Your task to perform on an android device: Set the phone to "Do not disturb". Image 0: 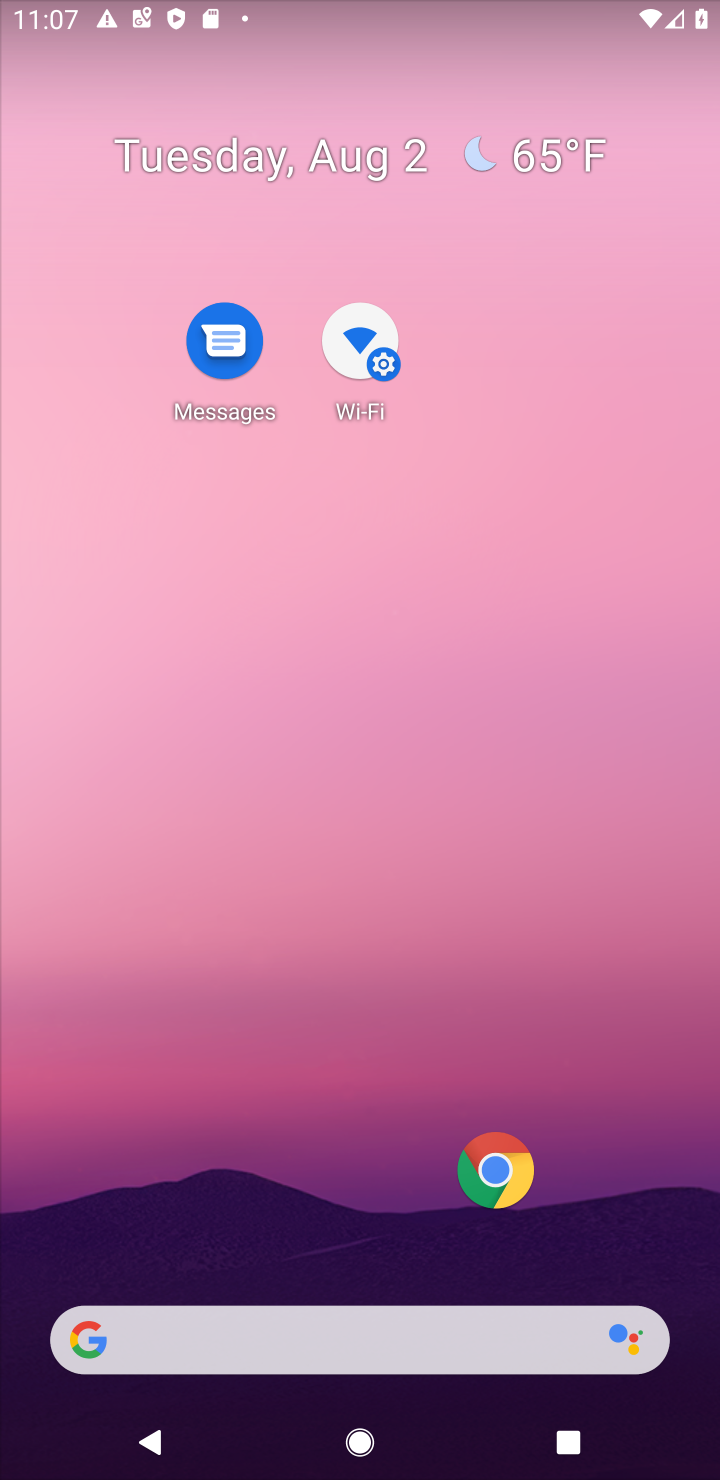
Step 0: drag from (269, 1012) to (351, 68)
Your task to perform on an android device: Set the phone to "Do not disturb". Image 1: 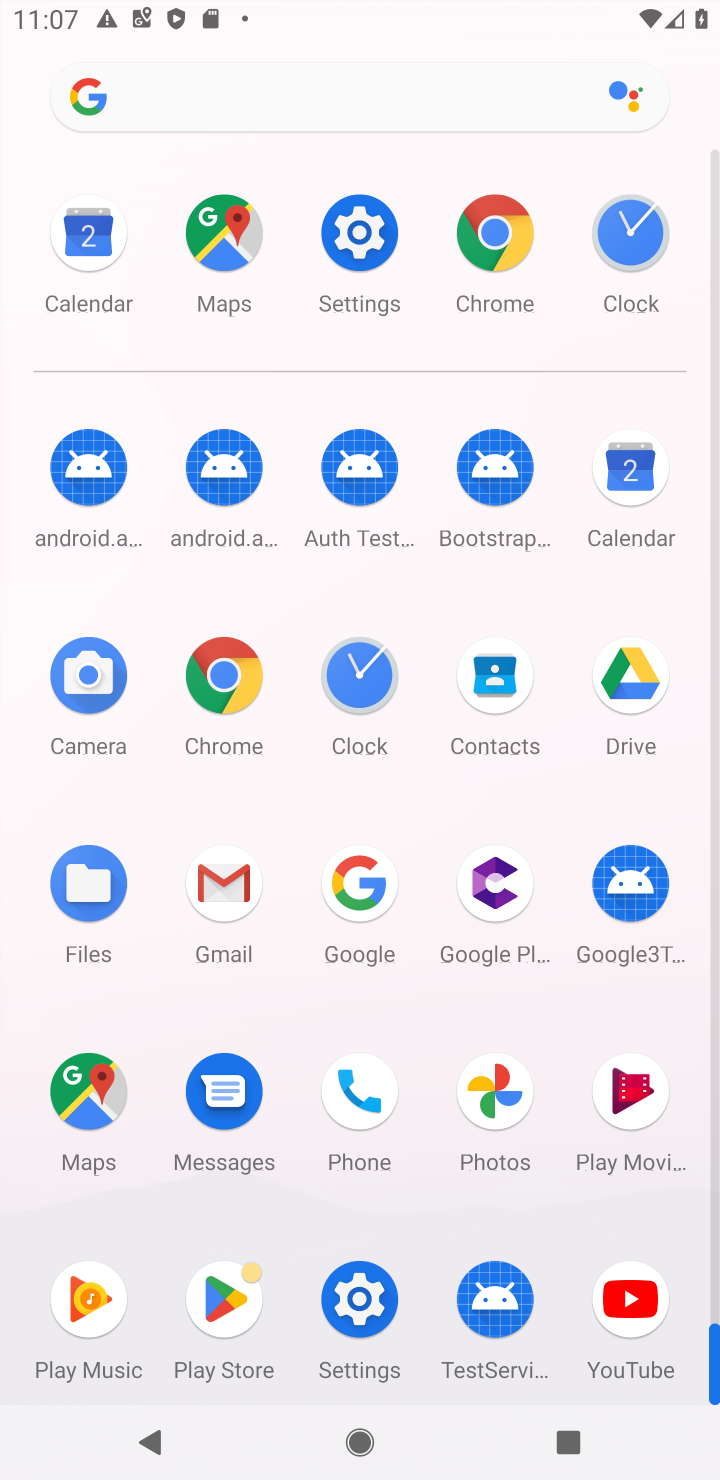
Step 1: click (355, 250)
Your task to perform on an android device: Set the phone to "Do not disturb". Image 2: 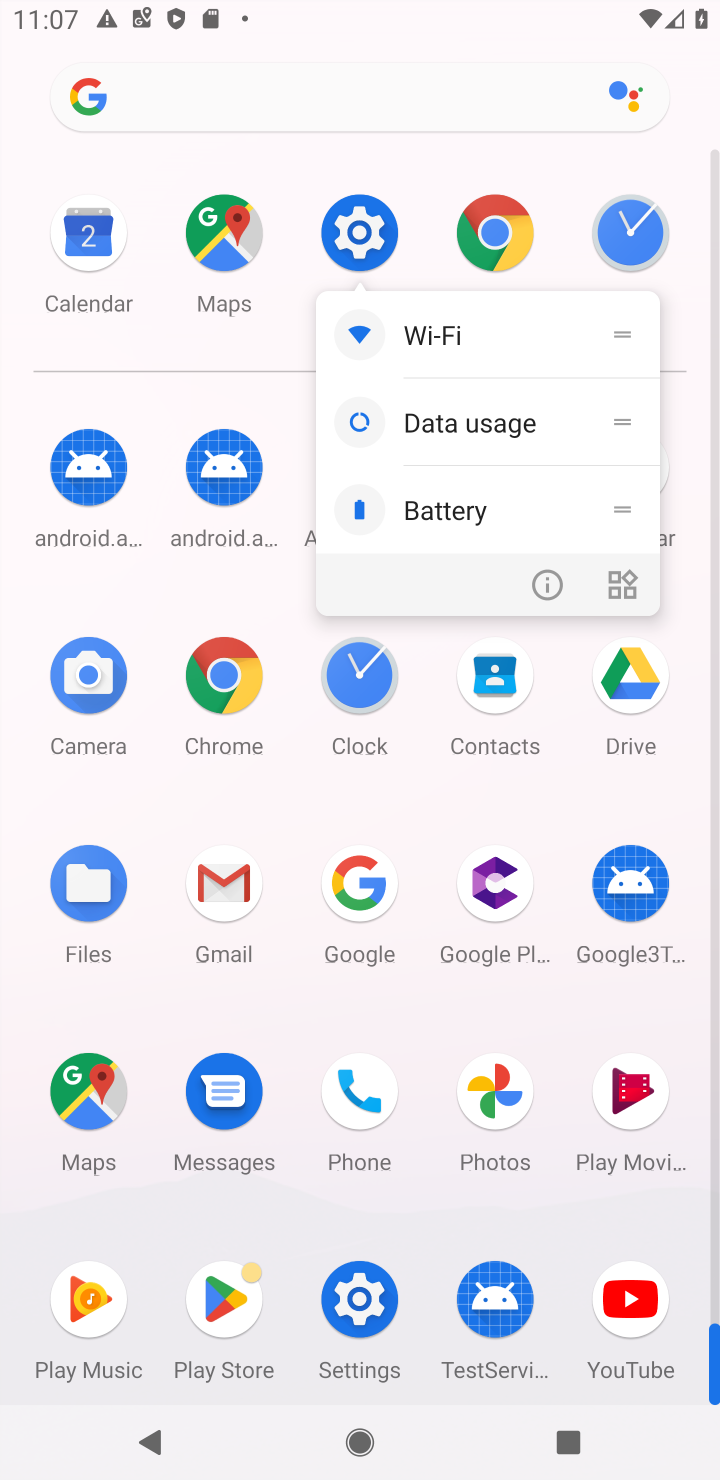
Step 2: click (551, 589)
Your task to perform on an android device: Set the phone to "Do not disturb". Image 3: 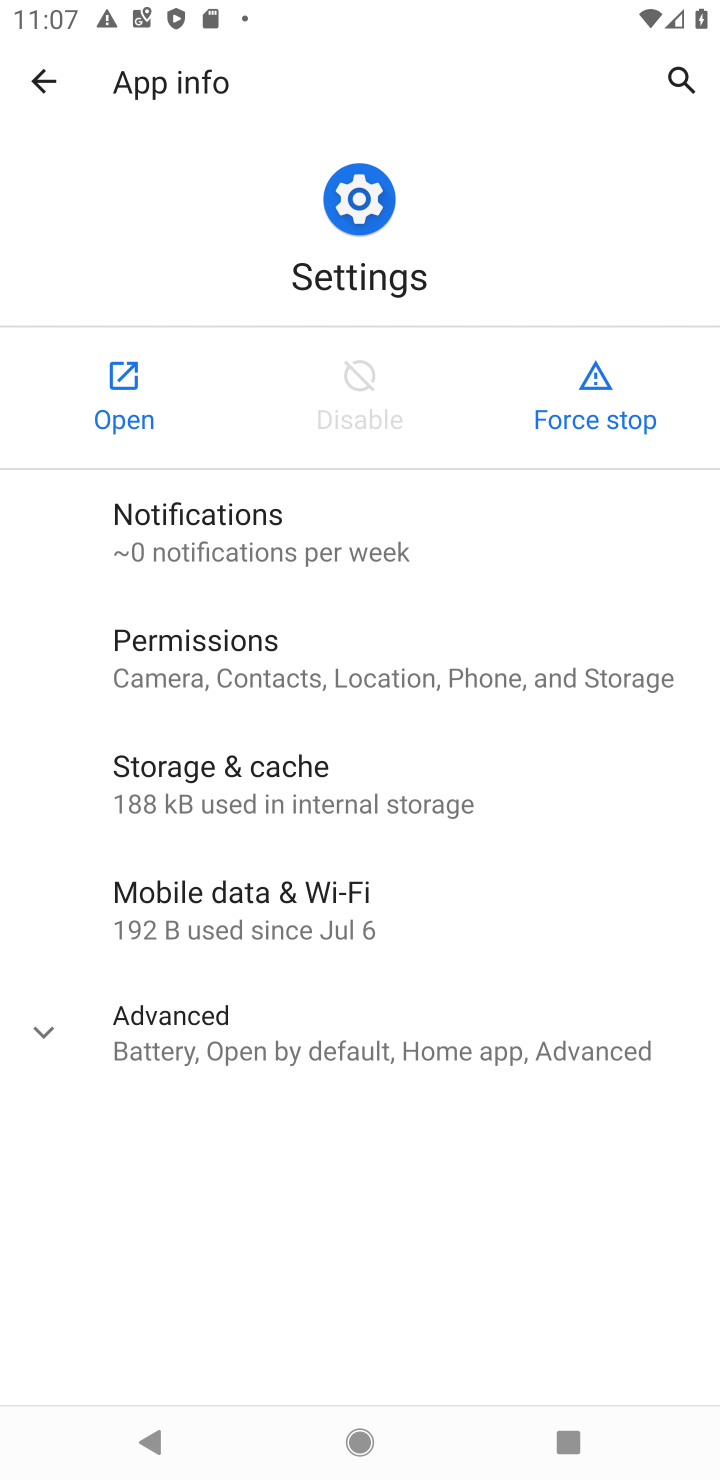
Step 3: click (120, 396)
Your task to perform on an android device: Set the phone to "Do not disturb". Image 4: 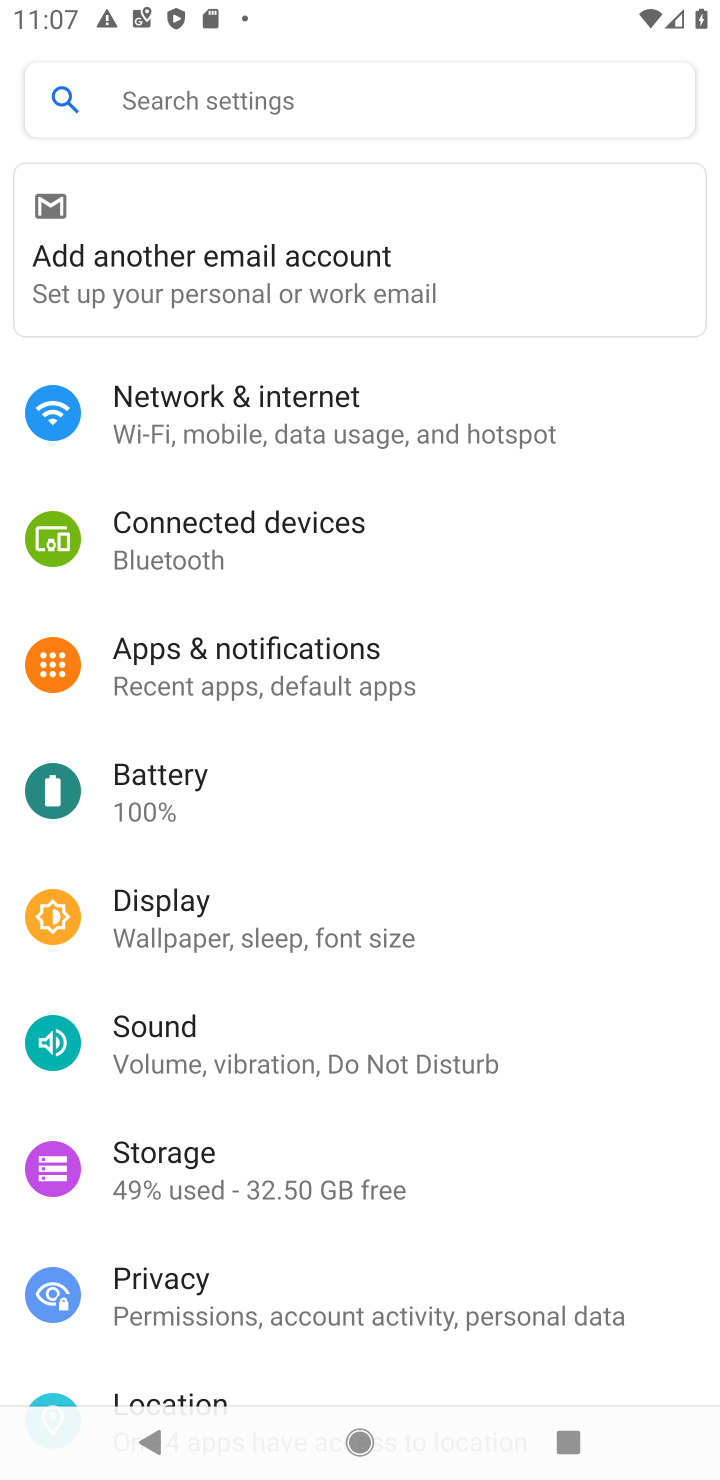
Step 4: click (349, 652)
Your task to perform on an android device: Set the phone to "Do not disturb". Image 5: 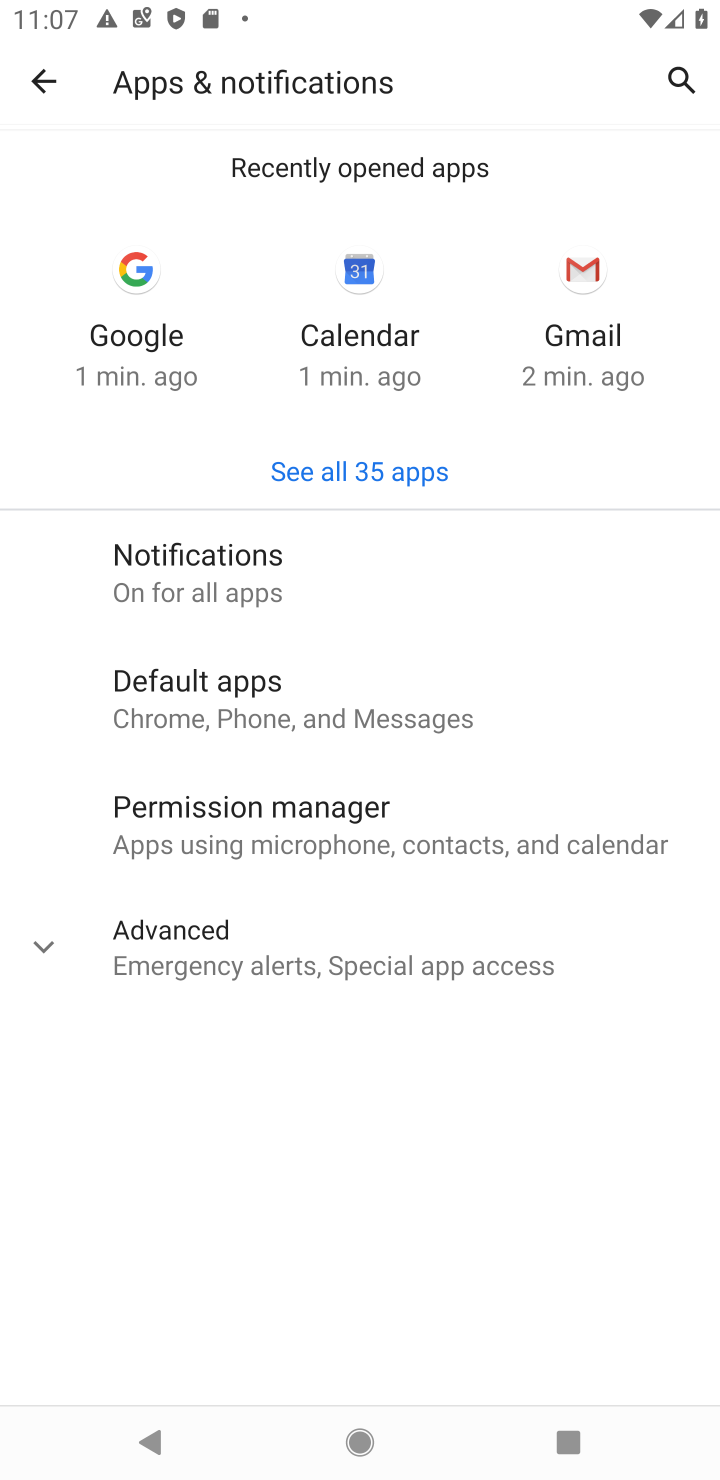
Step 5: click (339, 566)
Your task to perform on an android device: Set the phone to "Do not disturb". Image 6: 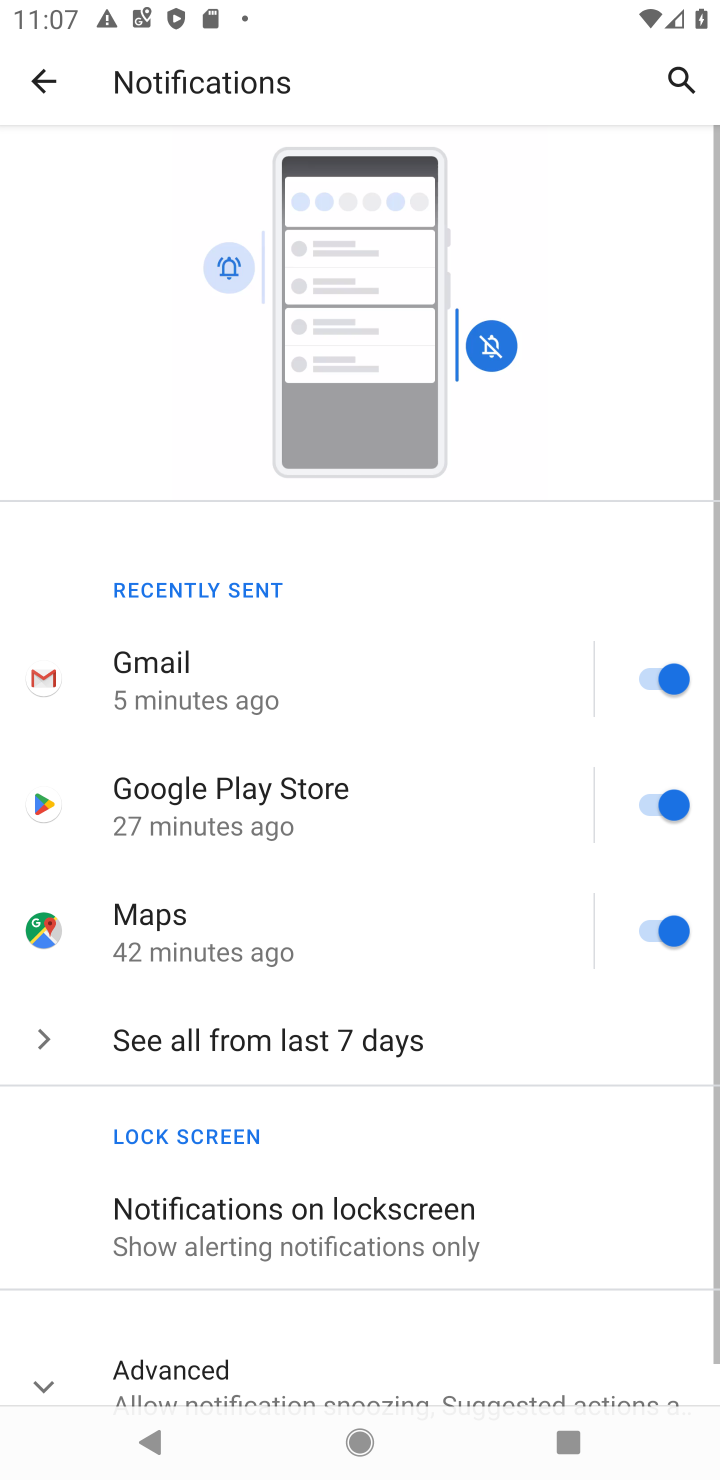
Step 6: drag from (348, 1188) to (556, 32)
Your task to perform on an android device: Set the phone to "Do not disturb". Image 7: 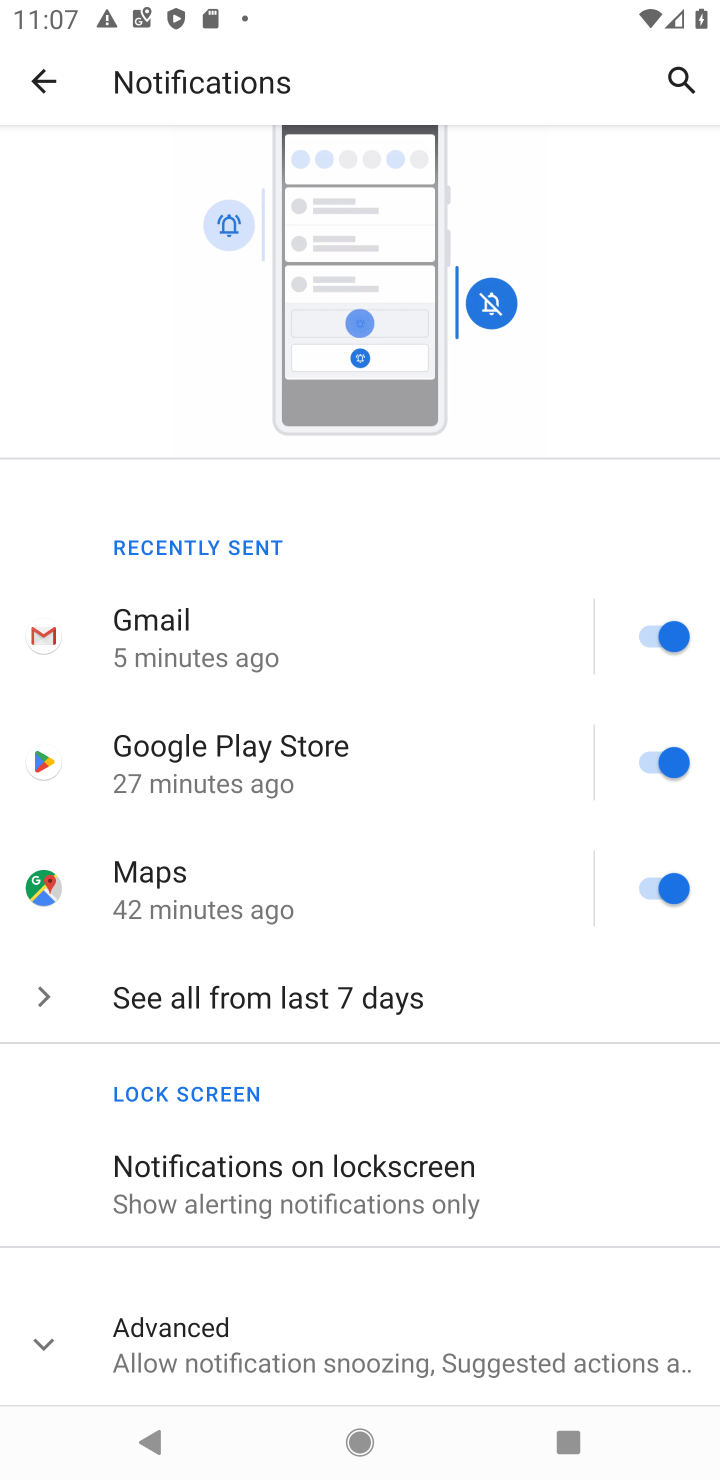
Step 7: click (241, 1338)
Your task to perform on an android device: Set the phone to "Do not disturb". Image 8: 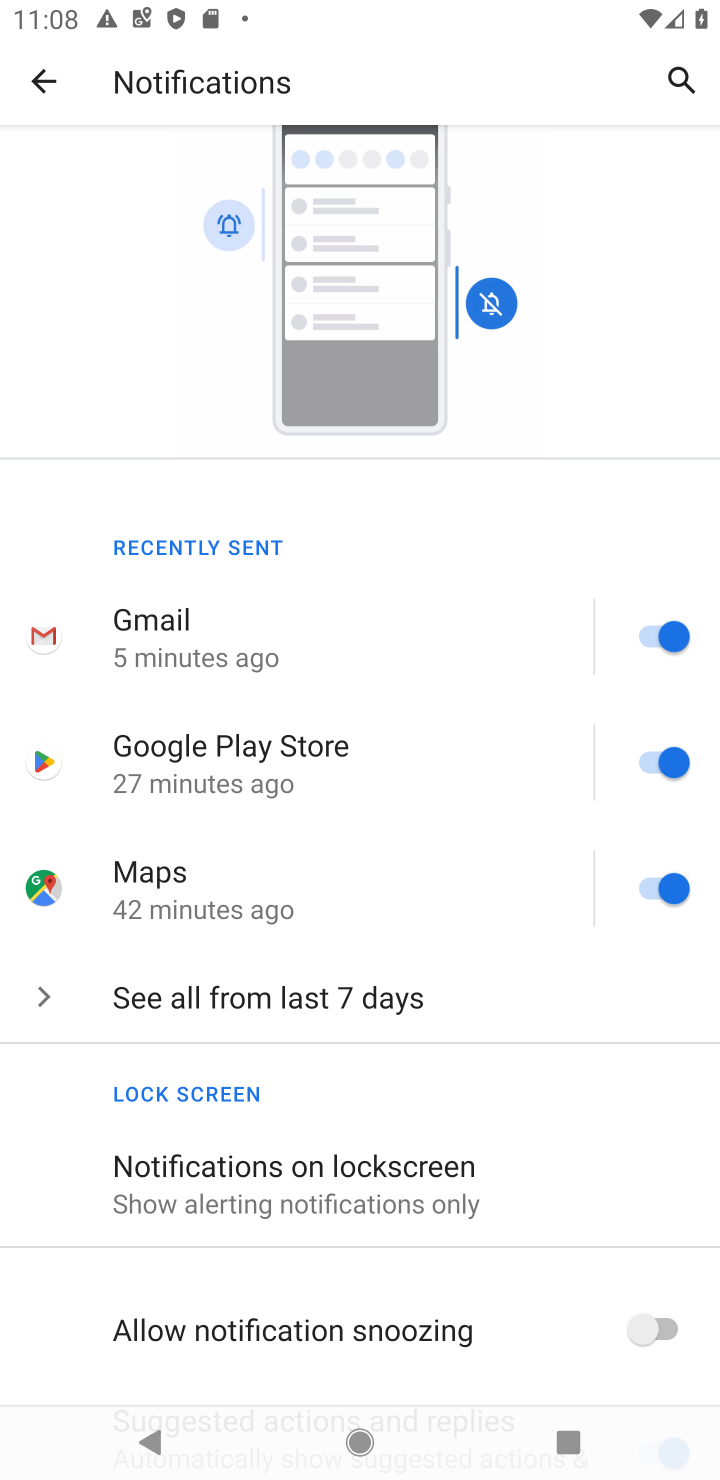
Step 8: drag from (303, 647) to (314, 6)
Your task to perform on an android device: Set the phone to "Do not disturb". Image 9: 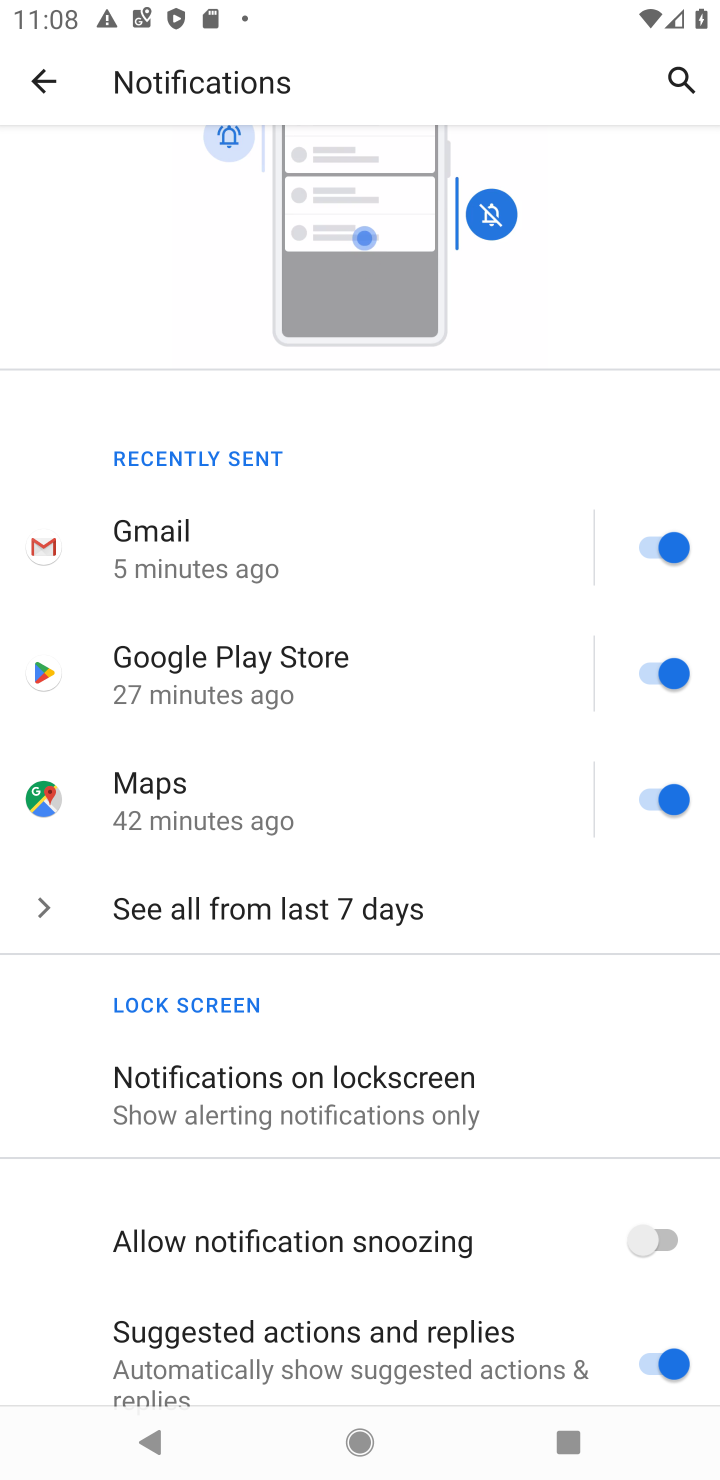
Step 9: drag from (347, 1265) to (604, 347)
Your task to perform on an android device: Set the phone to "Do not disturb". Image 10: 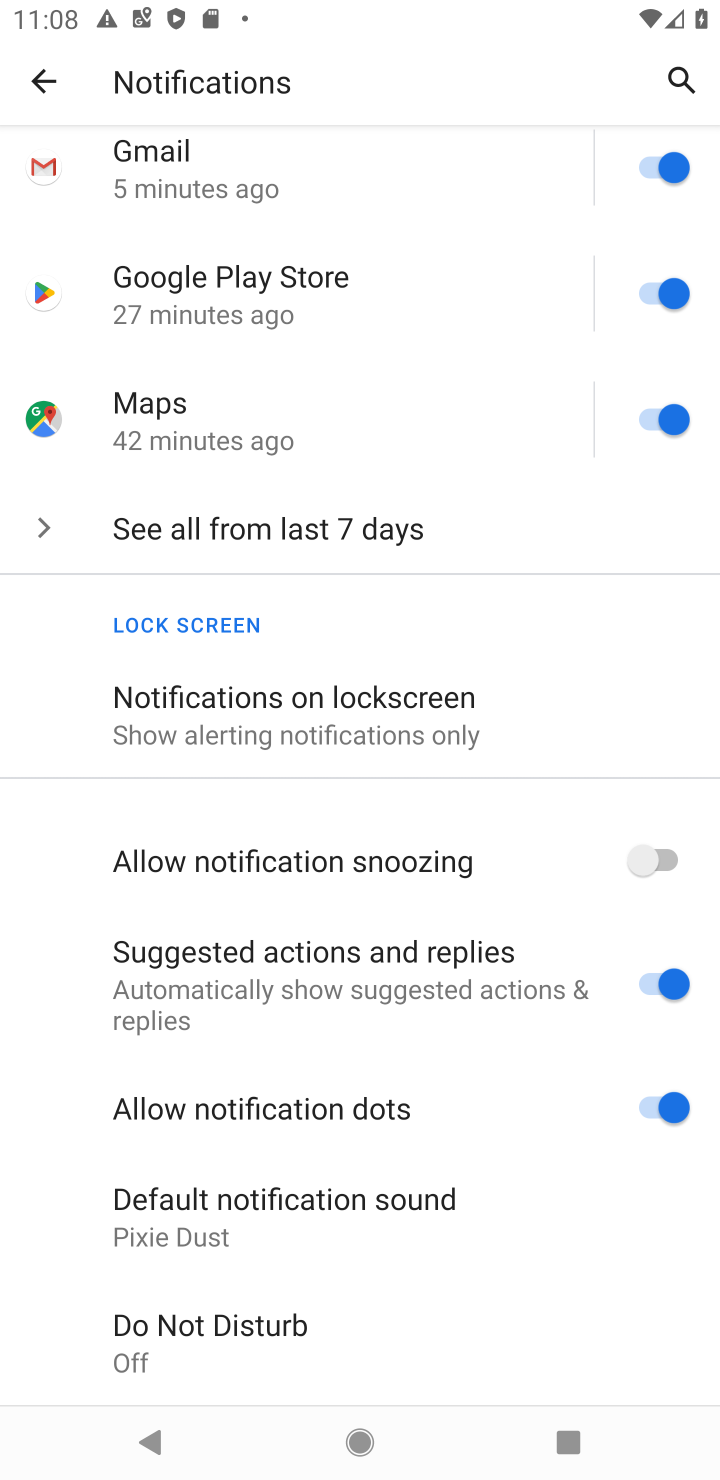
Step 10: drag from (438, 1134) to (534, 401)
Your task to perform on an android device: Set the phone to "Do not disturb". Image 11: 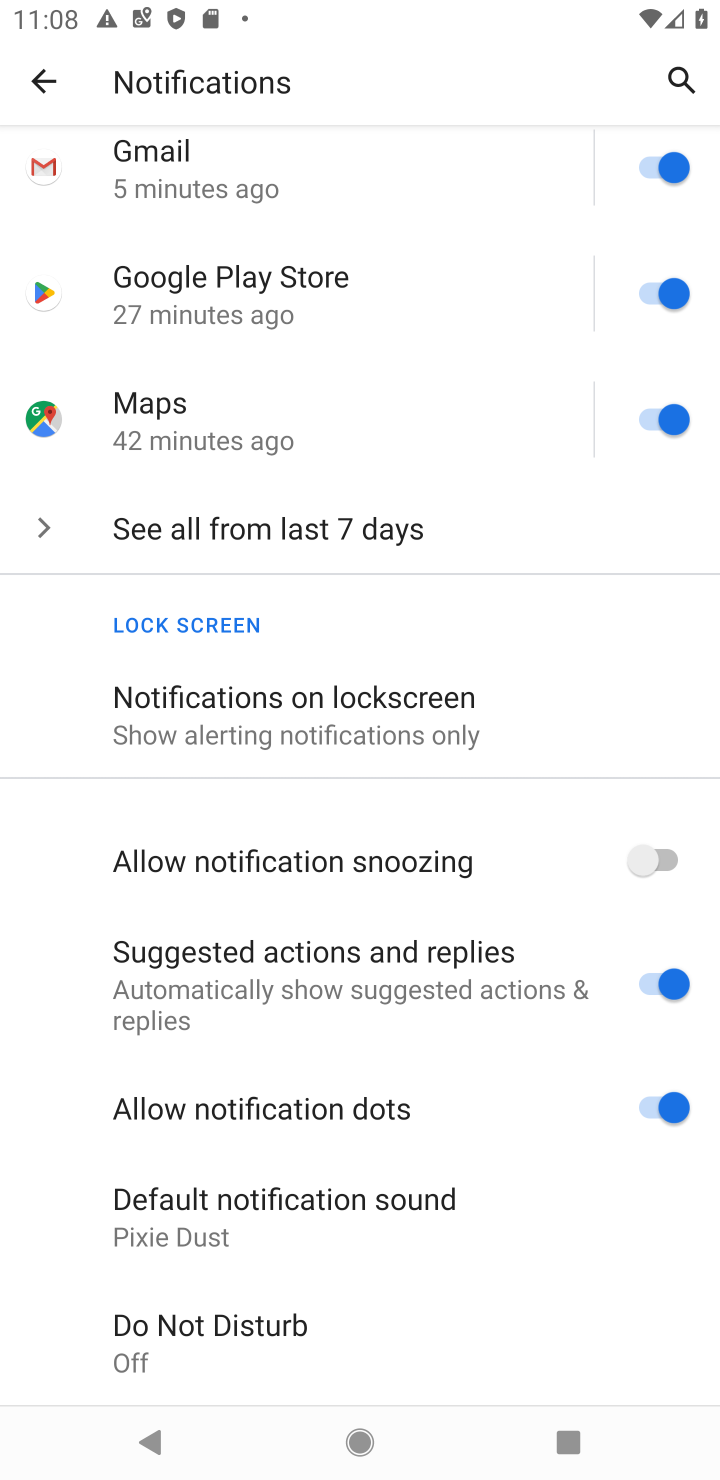
Step 11: click (236, 1335)
Your task to perform on an android device: Set the phone to "Do not disturb". Image 12: 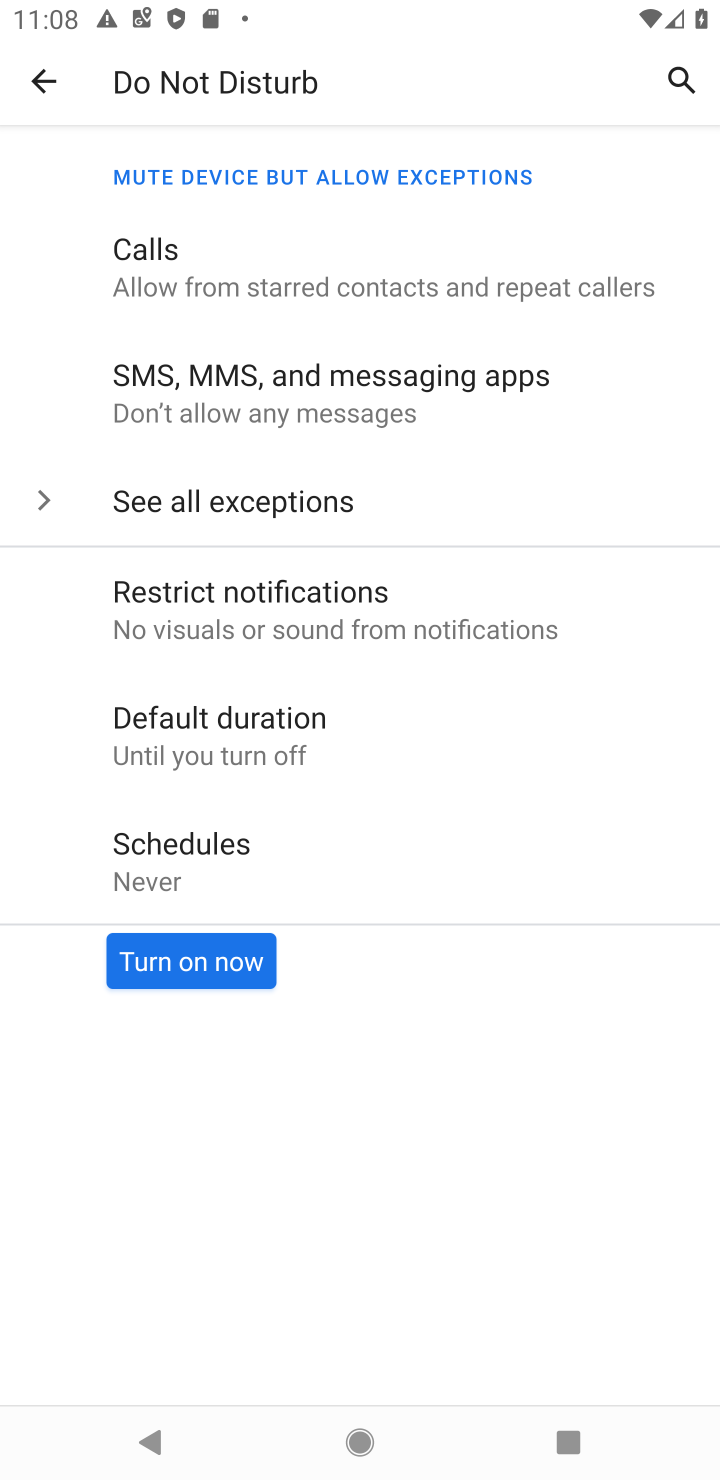
Step 12: click (147, 971)
Your task to perform on an android device: Set the phone to "Do not disturb". Image 13: 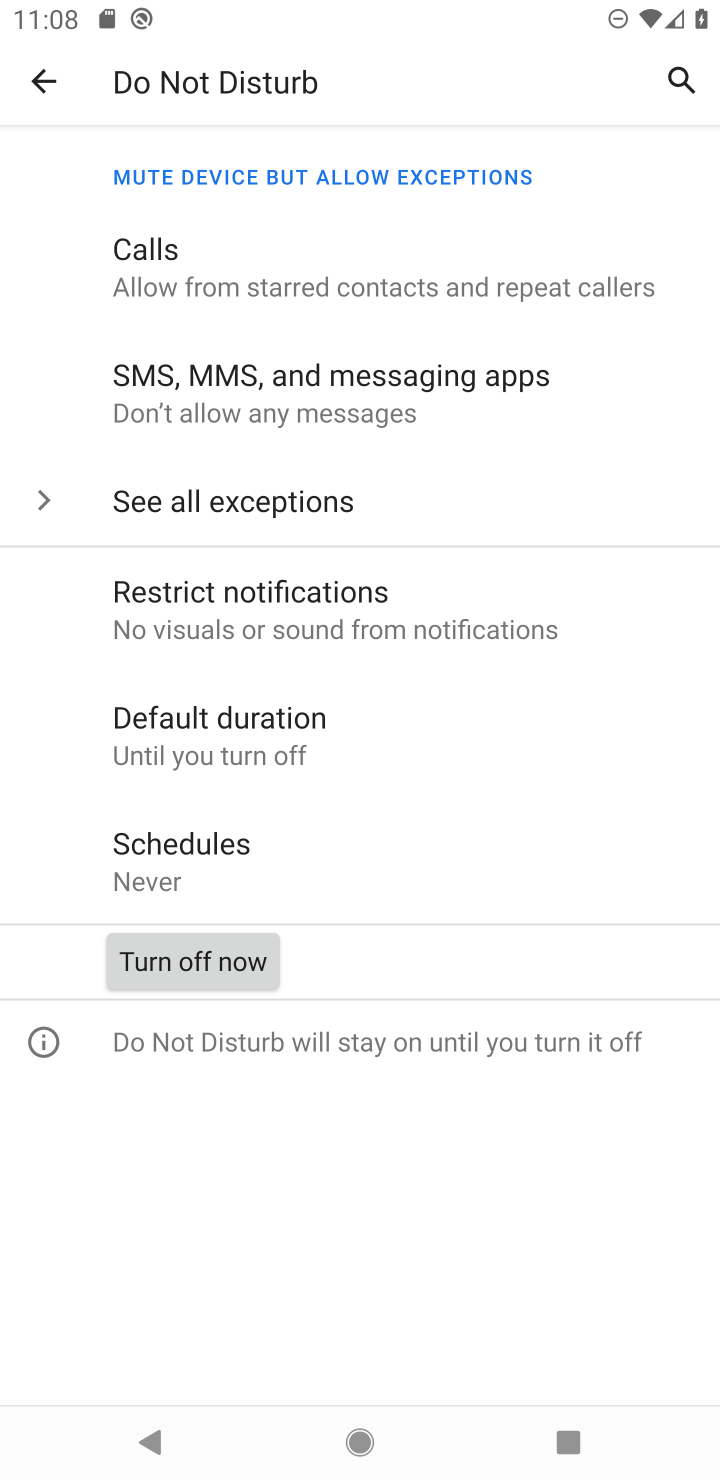
Step 13: task complete